Your task to perform on an android device: see tabs open on other devices in the chrome app Image 0: 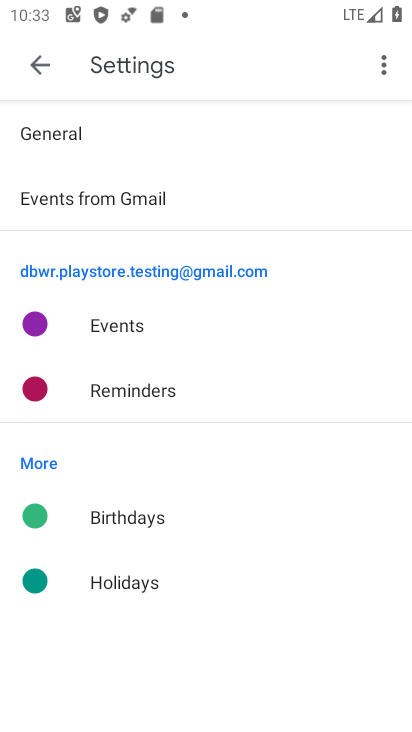
Step 0: press home button
Your task to perform on an android device: see tabs open on other devices in the chrome app Image 1: 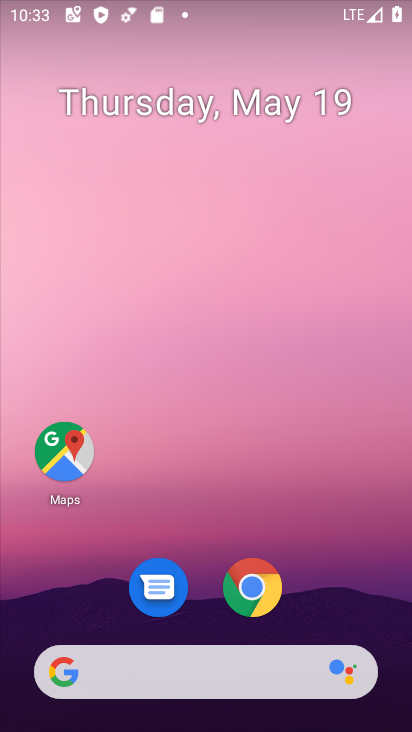
Step 1: click (257, 586)
Your task to perform on an android device: see tabs open on other devices in the chrome app Image 2: 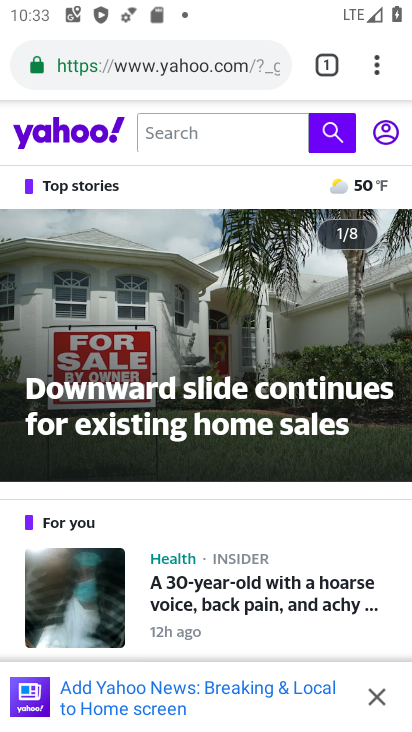
Step 2: click (391, 57)
Your task to perform on an android device: see tabs open on other devices in the chrome app Image 3: 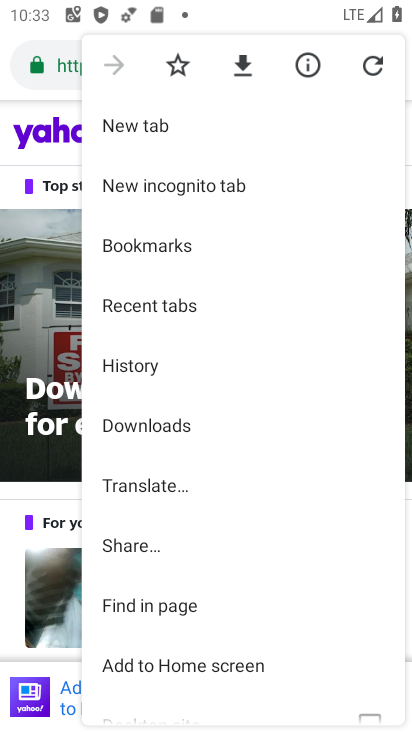
Step 3: drag from (201, 667) to (268, 187)
Your task to perform on an android device: see tabs open on other devices in the chrome app Image 4: 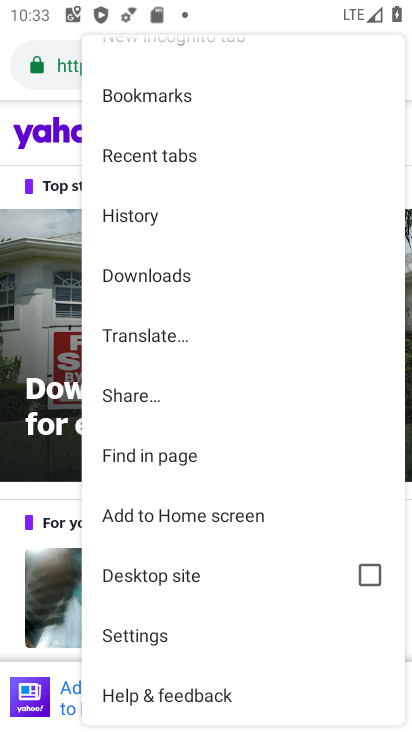
Step 4: click (208, 139)
Your task to perform on an android device: see tabs open on other devices in the chrome app Image 5: 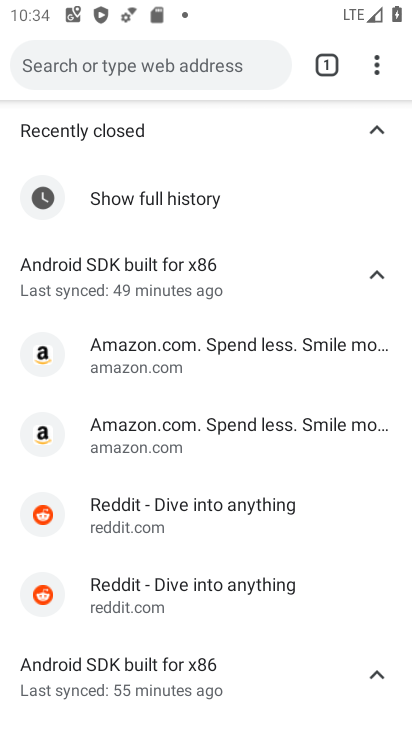
Step 5: task complete